Your task to perform on an android device: visit the assistant section in the google photos Image 0: 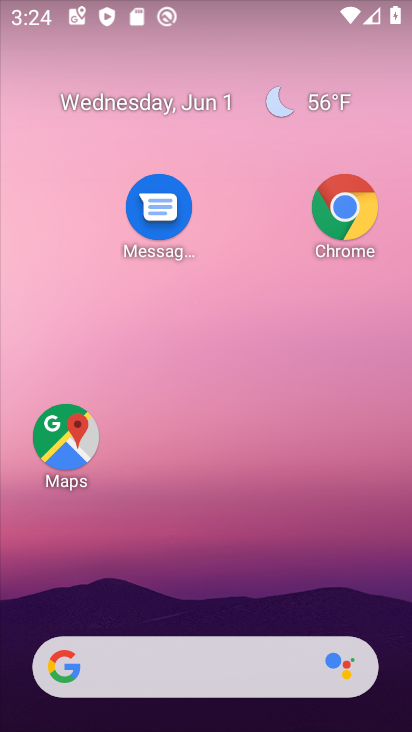
Step 0: drag from (279, 63) to (404, 440)
Your task to perform on an android device: visit the assistant section in the google photos Image 1: 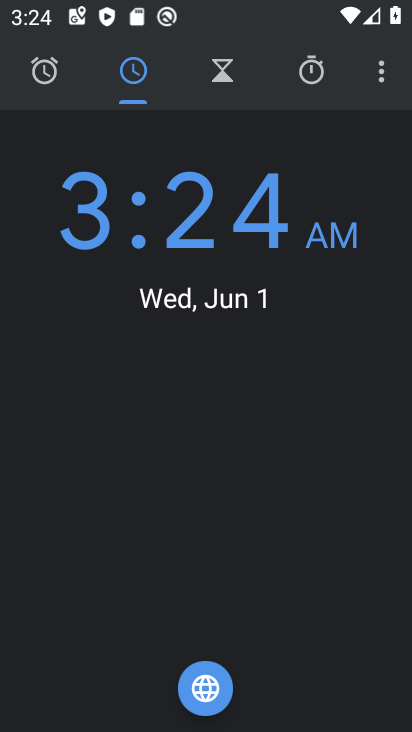
Step 1: drag from (252, 535) to (268, 245)
Your task to perform on an android device: visit the assistant section in the google photos Image 2: 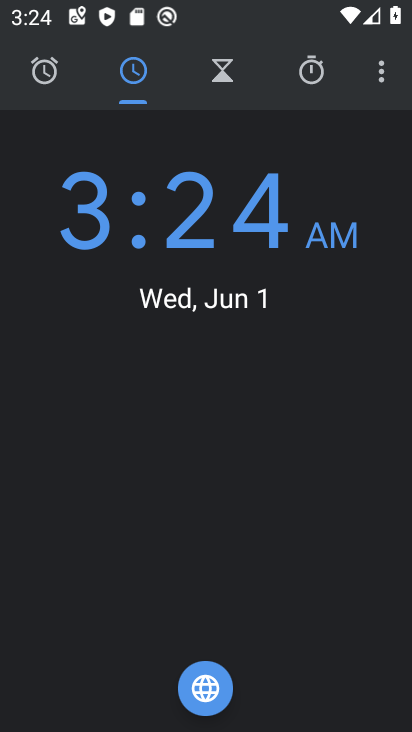
Step 2: press home button
Your task to perform on an android device: visit the assistant section in the google photos Image 3: 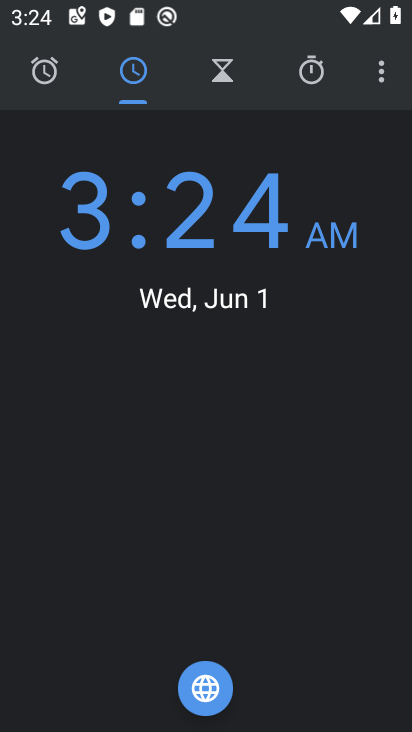
Step 3: press home button
Your task to perform on an android device: visit the assistant section in the google photos Image 4: 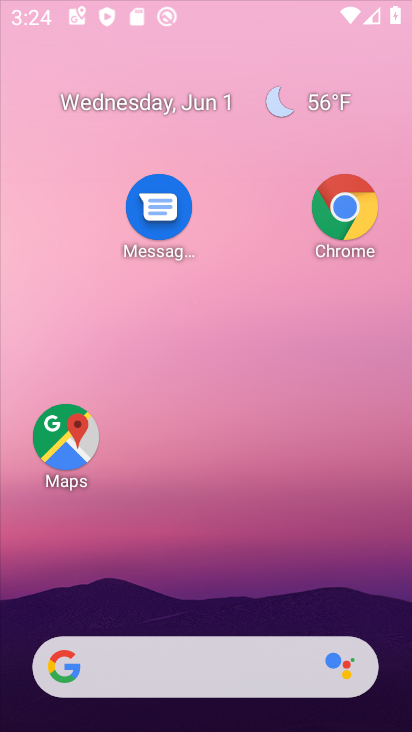
Step 4: press home button
Your task to perform on an android device: visit the assistant section in the google photos Image 5: 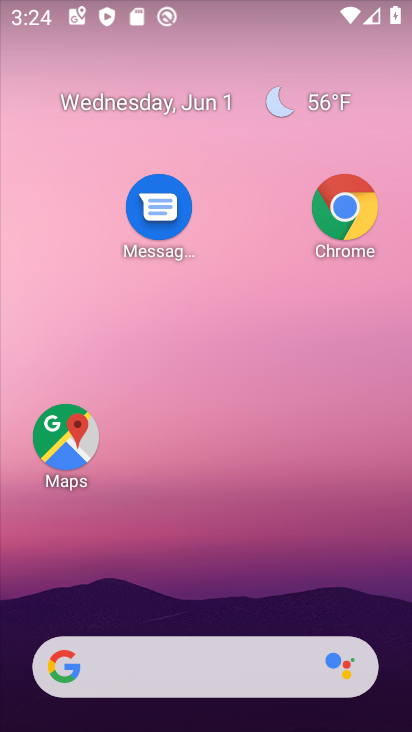
Step 5: drag from (209, 609) to (189, 140)
Your task to perform on an android device: visit the assistant section in the google photos Image 6: 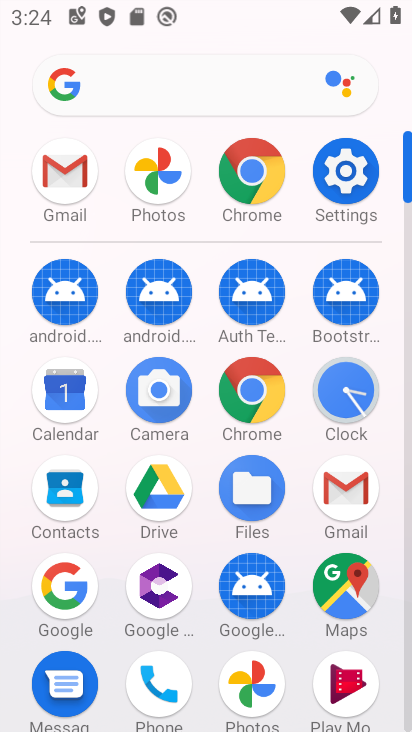
Step 6: click (249, 665)
Your task to perform on an android device: visit the assistant section in the google photos Image 7: 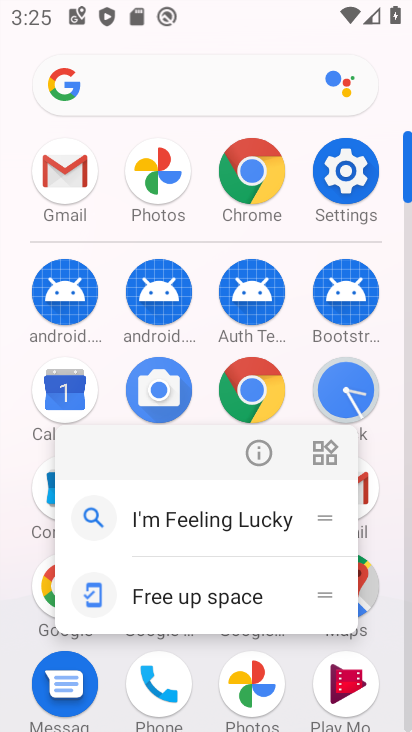
Step 7: click (256, 439)
Your task to perform on an android device: visit the assistant section in the google photos Image 8: 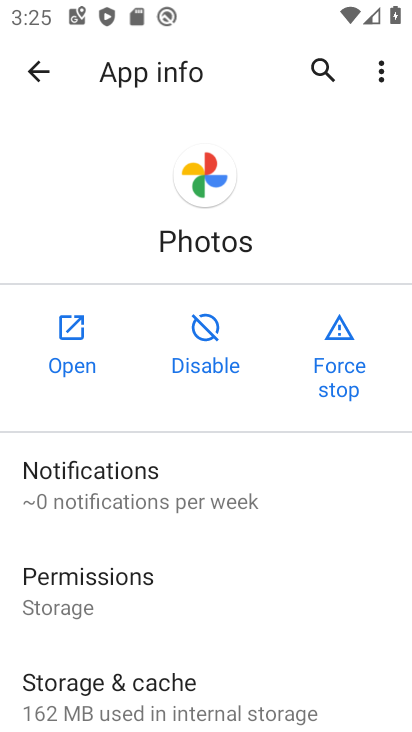
Step 8: click (52, 373)
Your task to perform on an android device: visit the assistant section in the google photos Image 9: 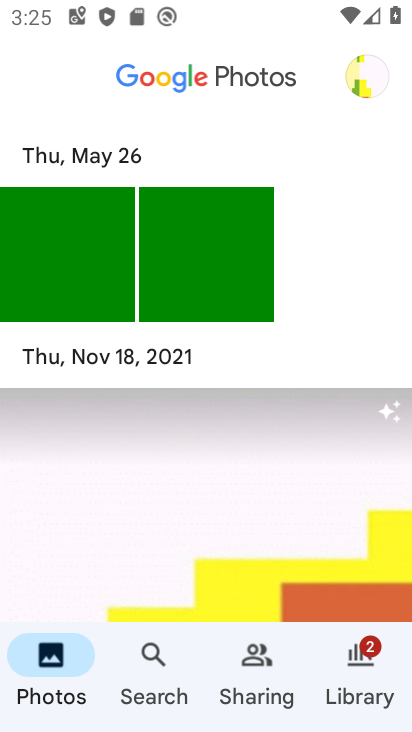
Step 9: task complete